Your task to perform on an android device: Is it going to rain tomorrow? Image 0: 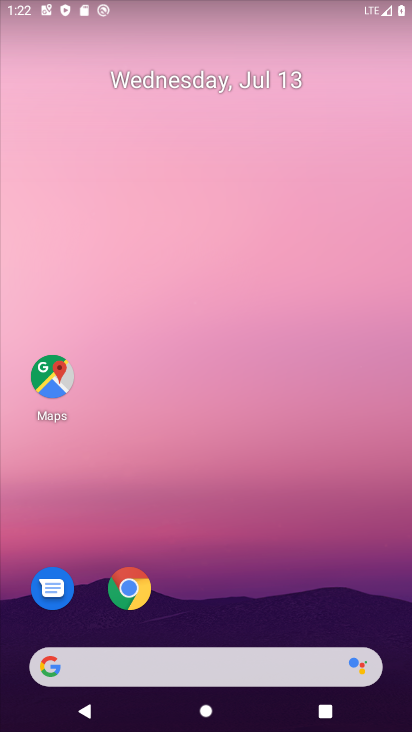
Step 0: drag from (403, 688) to (361, 240)
Your task to perform on an android device: Is it going to rain tomorrow? Image 1: 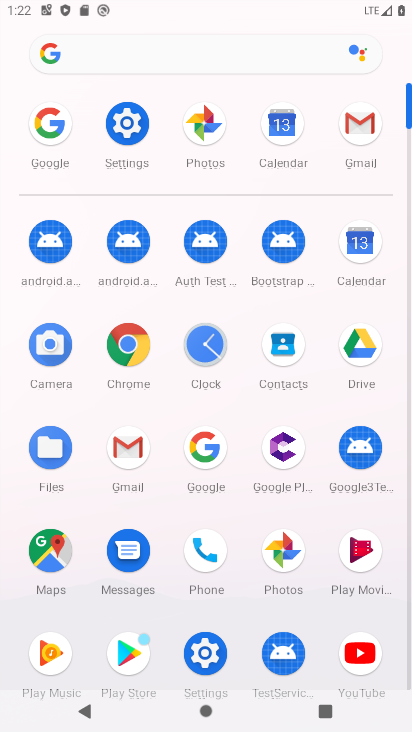
Step 1: click (209, 456)
Your task to perform on an android device: Is it going to rain tomorrow? Image 2: 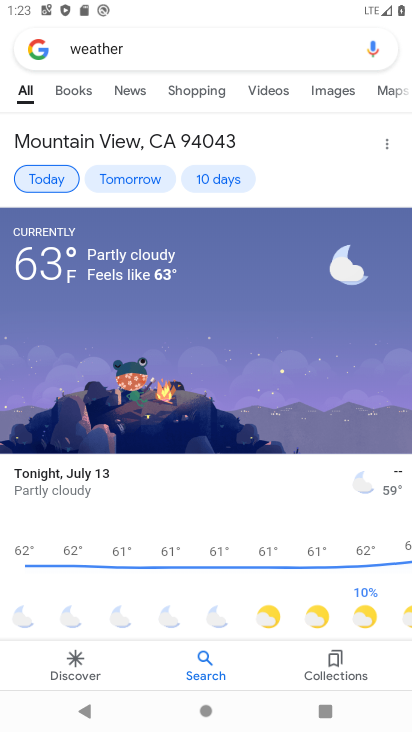
Step 2: task complete